Your task to perform on an android device: Do I have any events this weekend? Image 0: 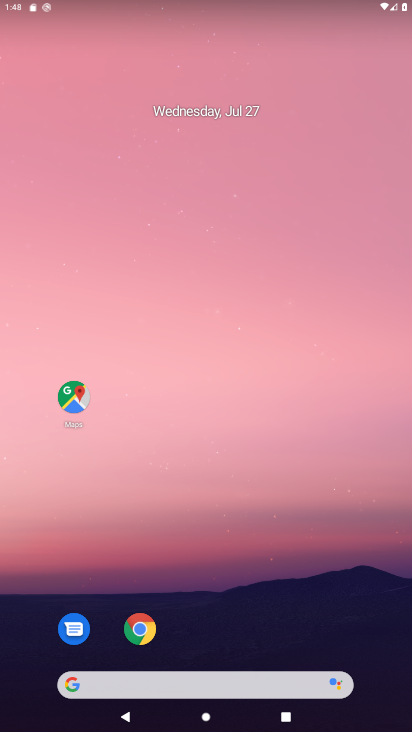
Step 0: drag from (269, 441) to (307, 77)
Your task to perform on an android device: Do I have any events this weekend? Image 1: 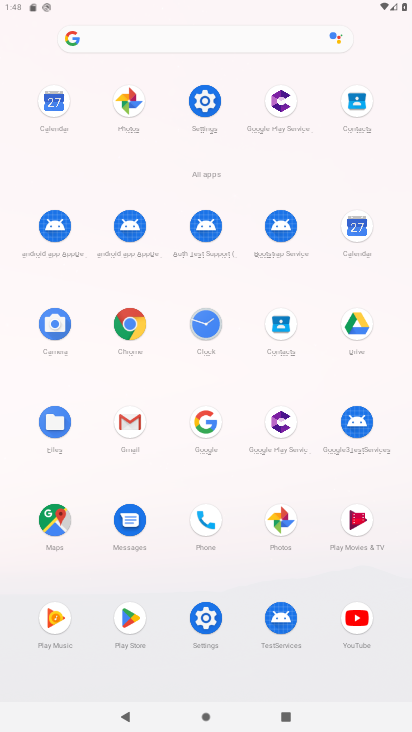
Step 1: click (353, 218)
Your task to perform on an android device: Do I have any events this weekend? Image 2: 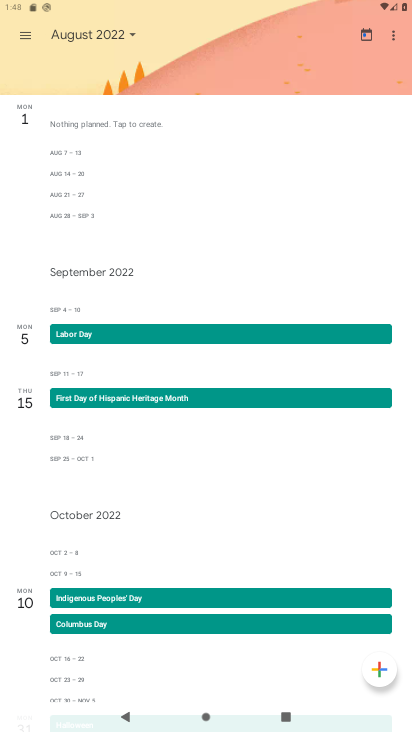
Step 2: click (122, 35)
Your task to perform on an android device: Do I have any events this weekend? Image 3: 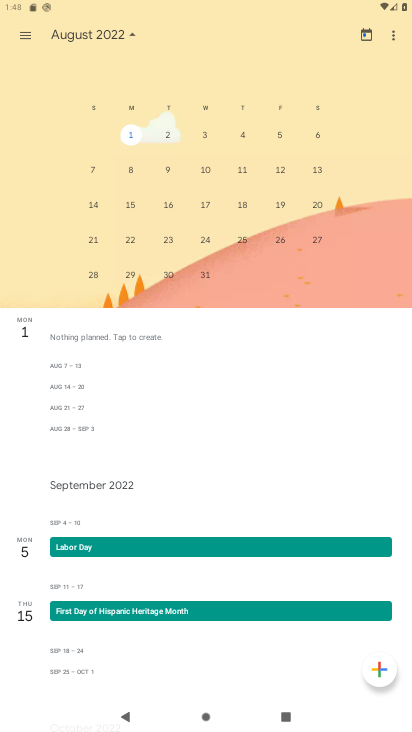
Step 3: drag from (40, 273) to (281, 256)
Your task to perform on an android device: Do I have any events this weekend? Image 4: 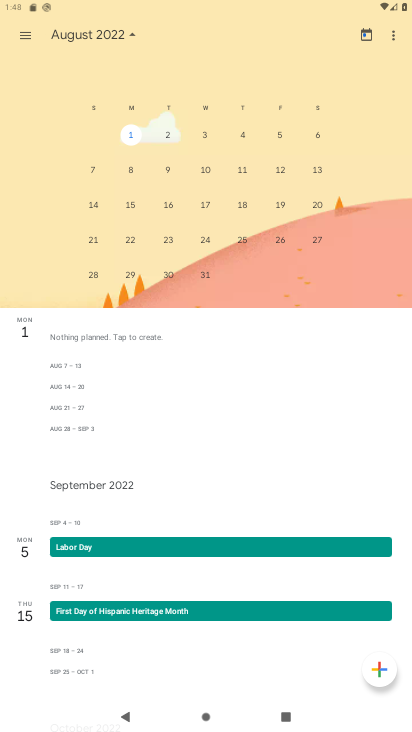
Step 4: drag from (35, 222) to (405, 185)
Your task to perform on an android device: Do I have any events this weekend? Image 5: 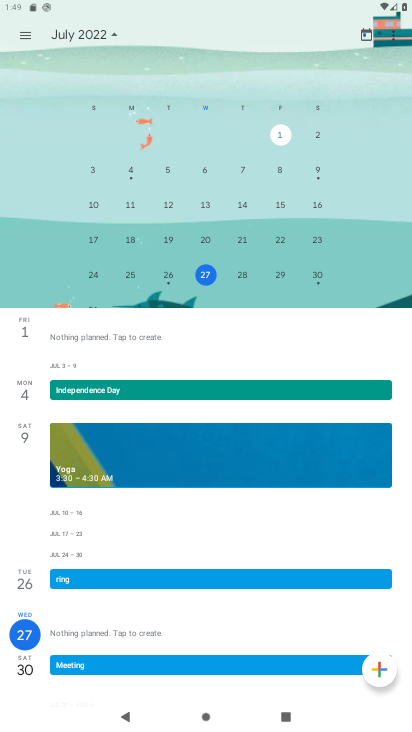
Step 5: click (317, 276)
Your task to perform on an android device: Do I have any events this weekend? Image 6: 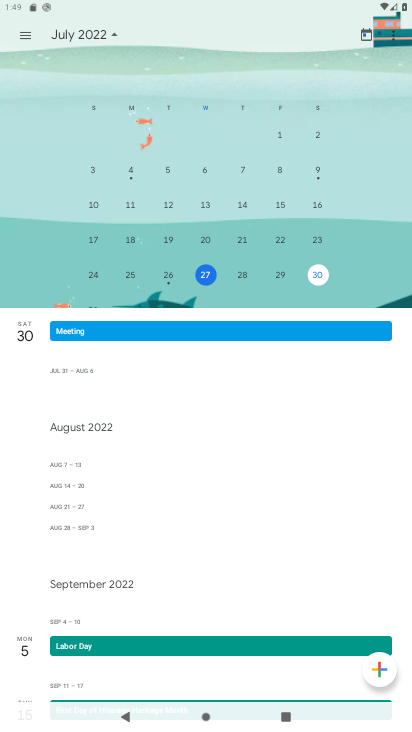
Step 6: task complete